Your task to perform on an android device: Go to Wikipedia Image 0: 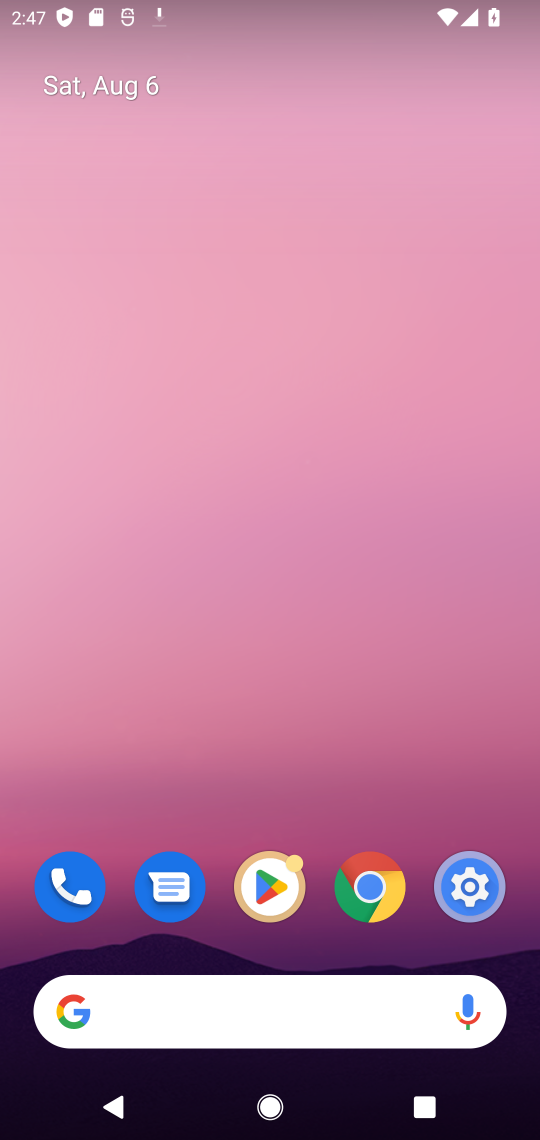
Step 0: drag from (234, 706) to (286, 164)
Your task to perform on an android device: Go to Wikipedia Image 1: 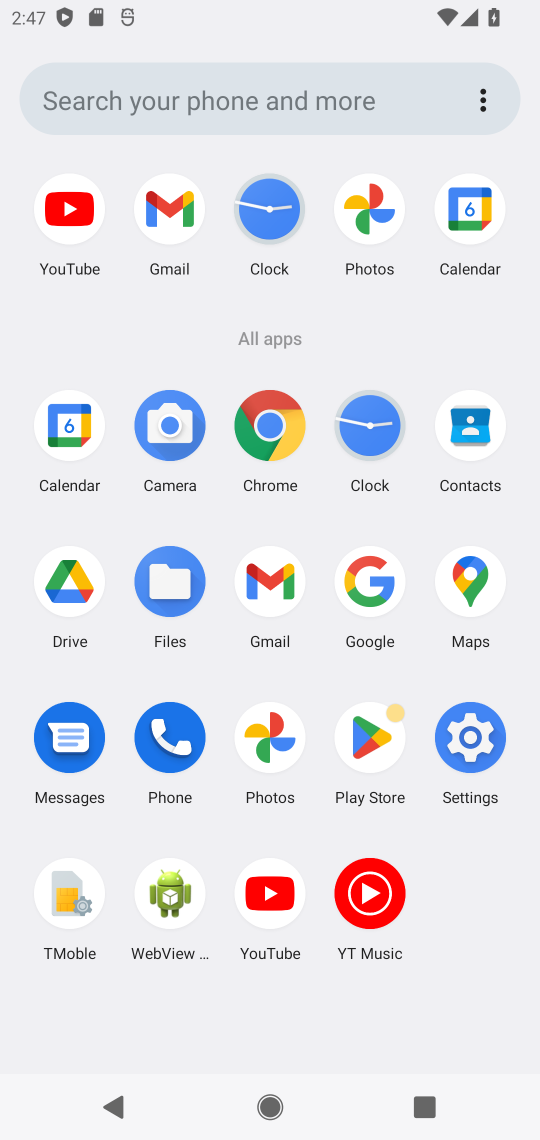
Step 1: click (274, 432)
Your task to perform on an android device: Go to Wikipedia Image 2: 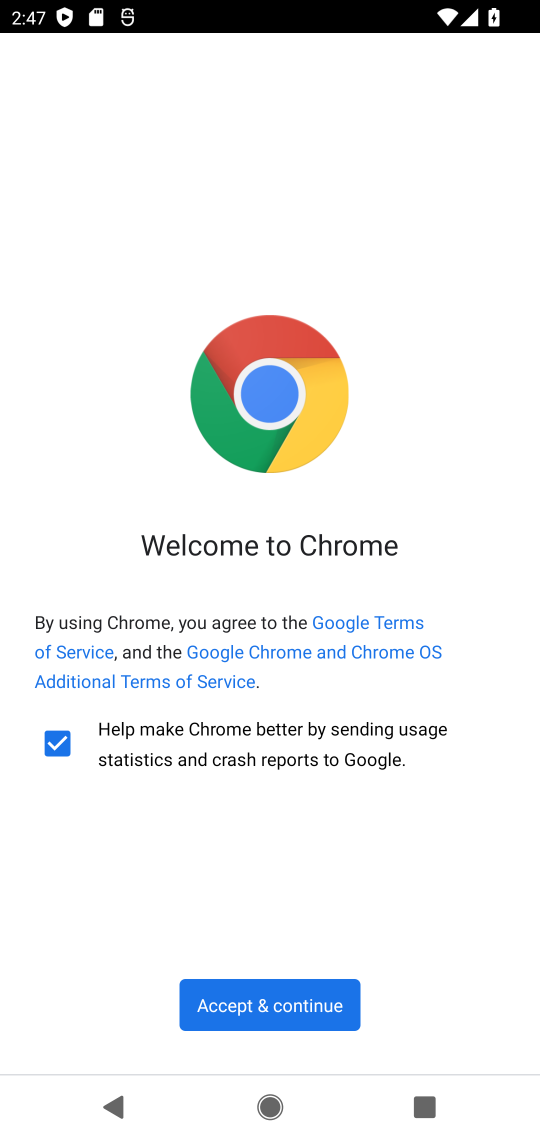
Step 2: click (265, 1019)
Your task to perform on an android device: Go to Wikipedia Image 3: 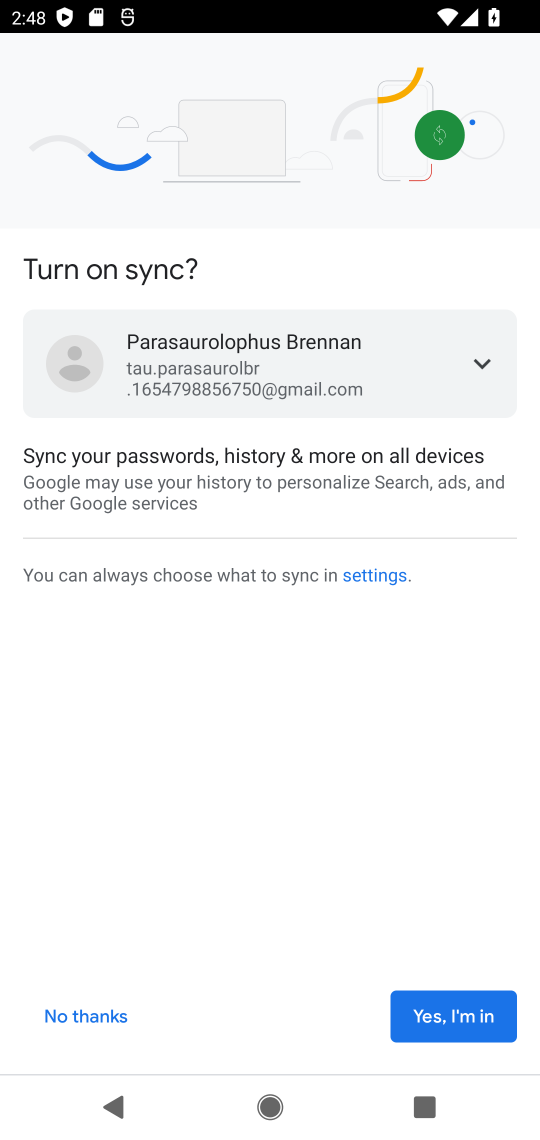
Step 3: click (459, 1016)
Your task to perform on an android device: Go to Wikipedia Image 4: 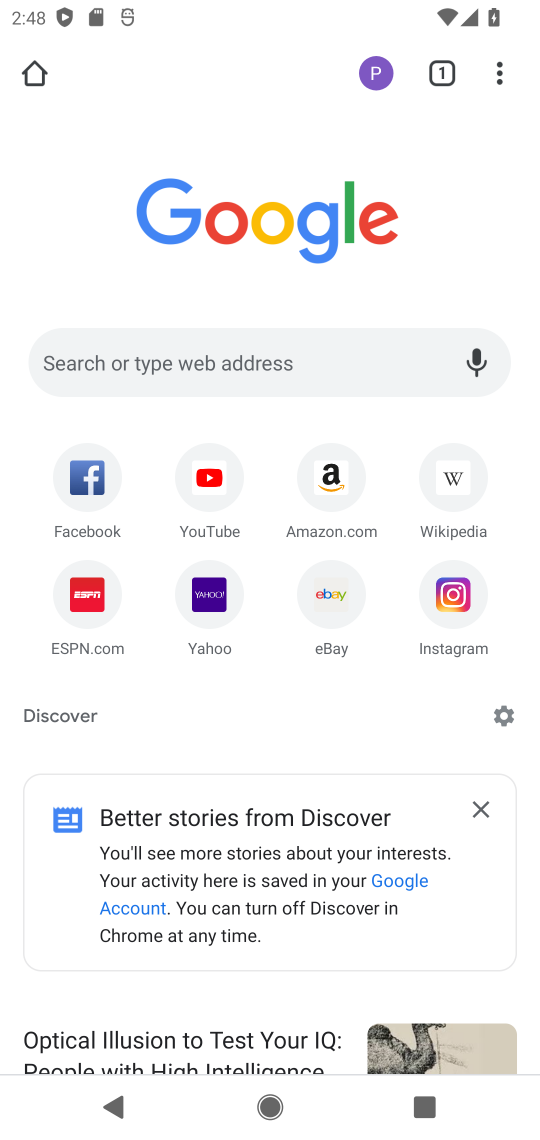
Step 4: click (356, 349)
Your task to perform on an android device: Go to Wikipedia Image 5: 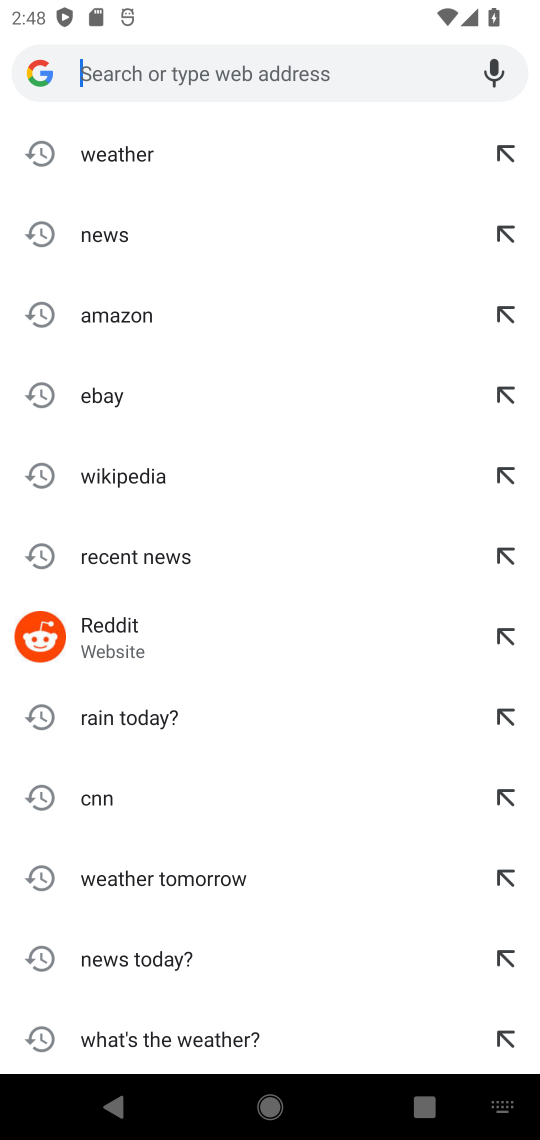
Step 5: type "wikipedia"
Your task to perform on an android device: Go to Wikipedia Image 6: 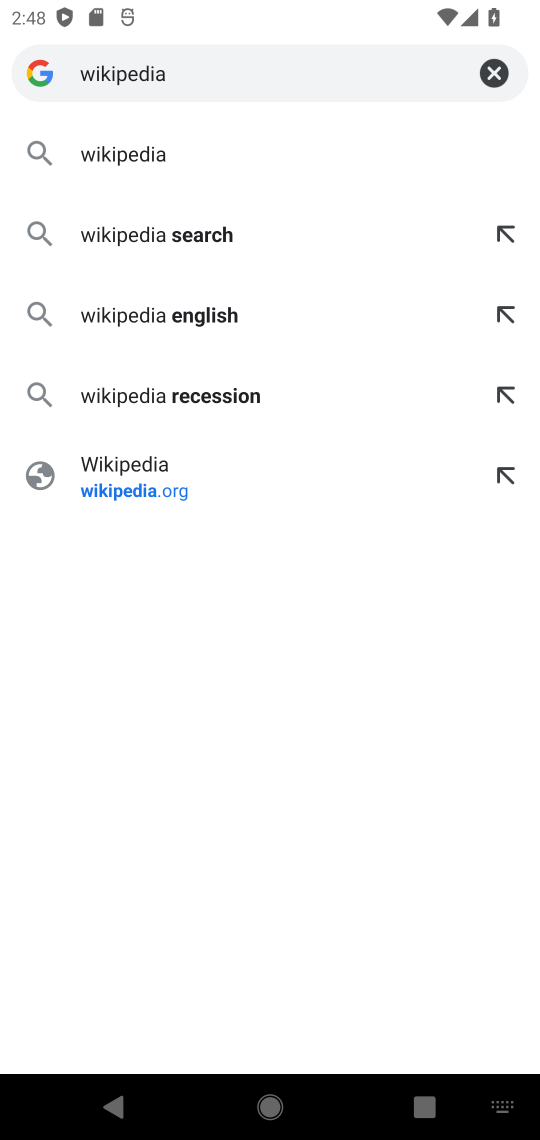
Step 6: click (147, 144)
Your task to perform on an android device: Go to Wikipedia Image 7: 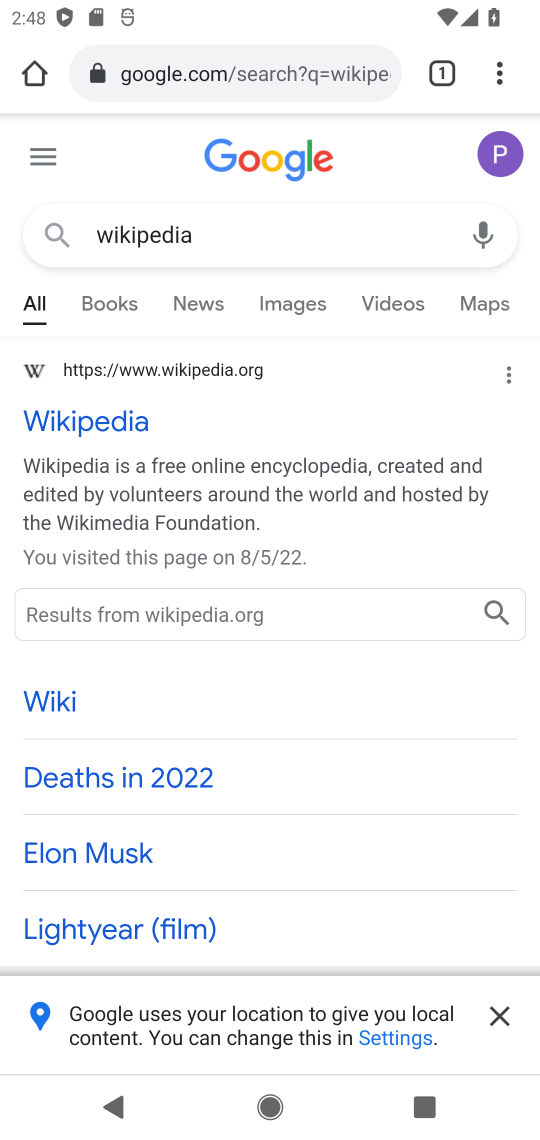
Step 7: task complete